Your task to perform on an android device: toggle javascript in the chrome app Image 0: 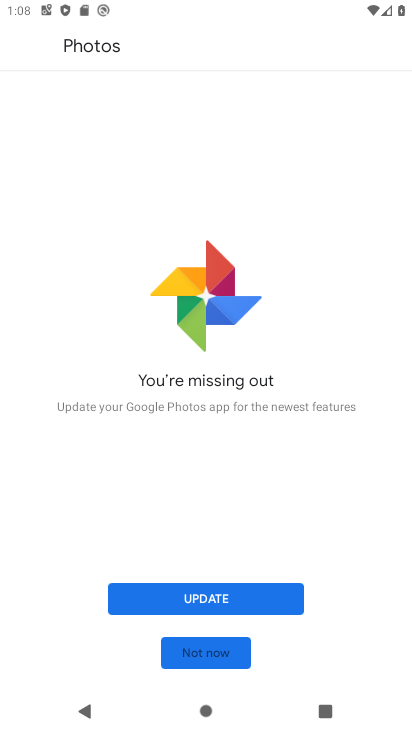
Step 0: press home button
Your task to perform on an android device: toggle javascript in the chrome app Image 1: 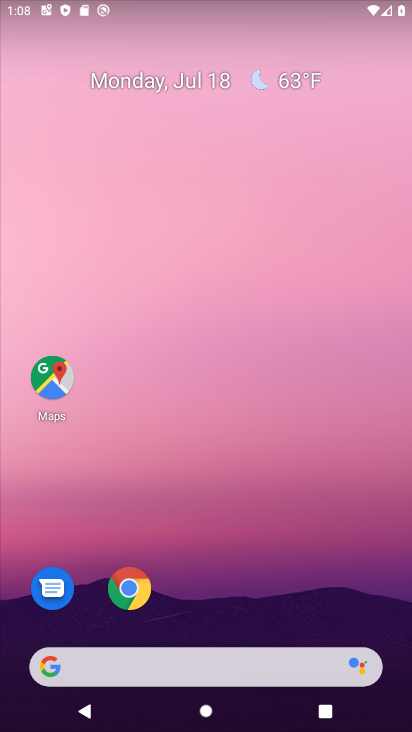
Step 1: click (128, 585)
Your task to perform on an android device: toggle javascript in the chrome app Image 2: 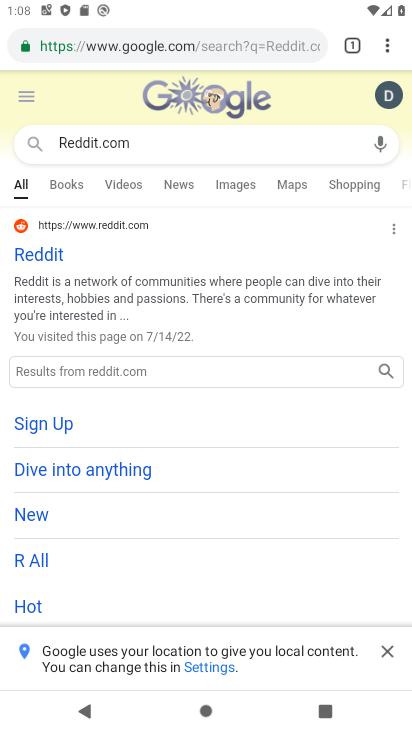
Step 2: click (386, 39)
Your task to perform on an android device: toggle javascript in the chrome app Image 3: 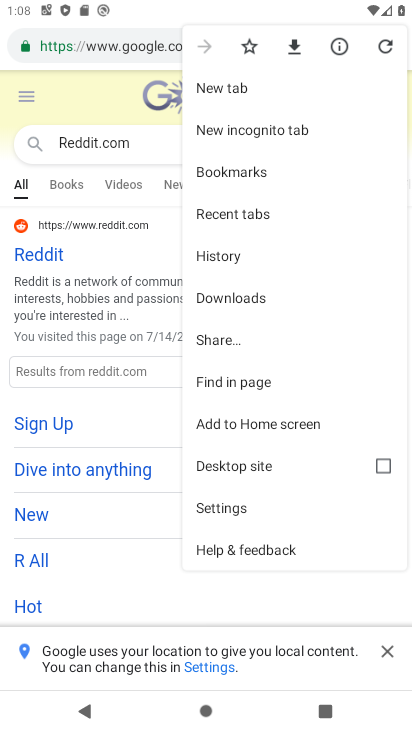
Step 3: click (386, 39)
Your task to perform on an android device: toggle javascript in the chrome app Image 4: 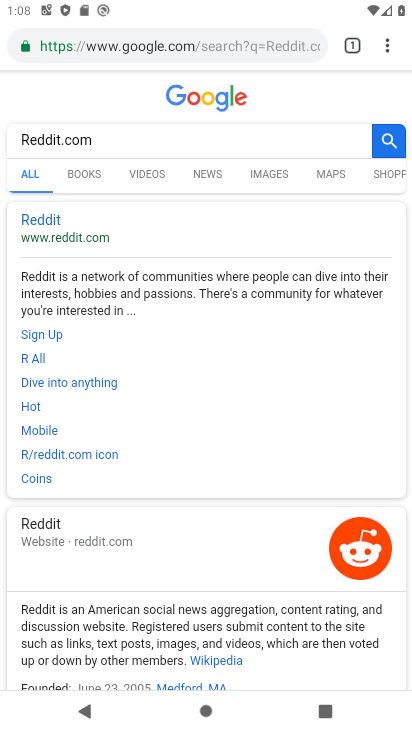
Step 4: click (388, 44)
Your task to perform on an android device: toggle javascript in the chrome app Image 5: 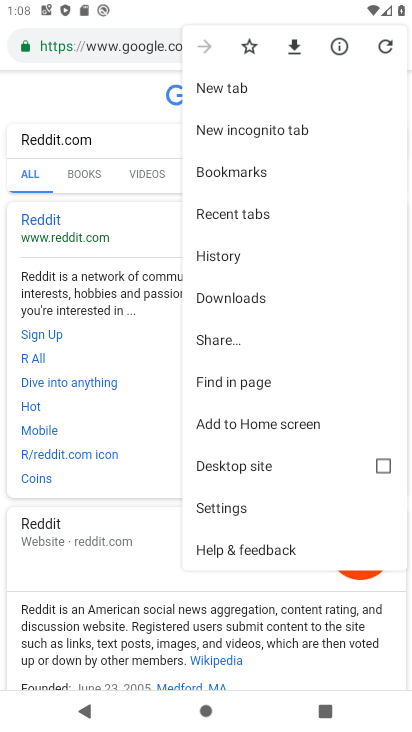
Step 5: click (210, 507)
Your task to perform on an android device: toggle javascript in the chrome app Image 6: 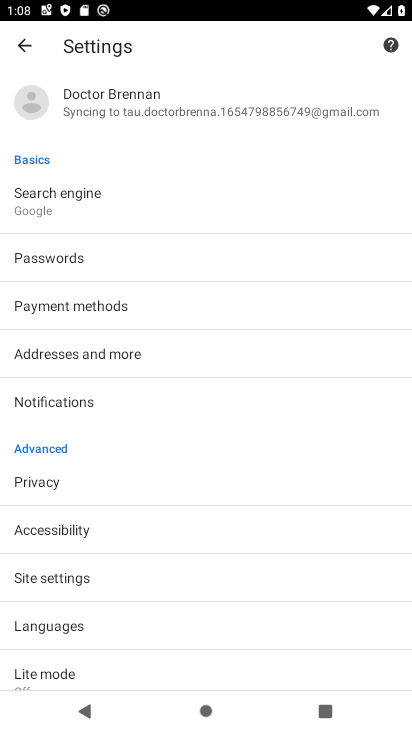
Step 6: click (67, 577)
Your task to perform on an android device: toggle javascript in the chrome app Image 7: 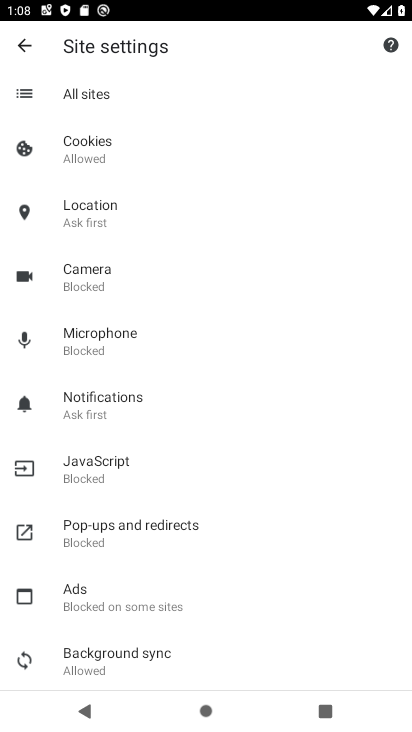
Step 7: click (107, 457)
Your task to perform on an android device: toggle javascript in the chrome app Image 8: 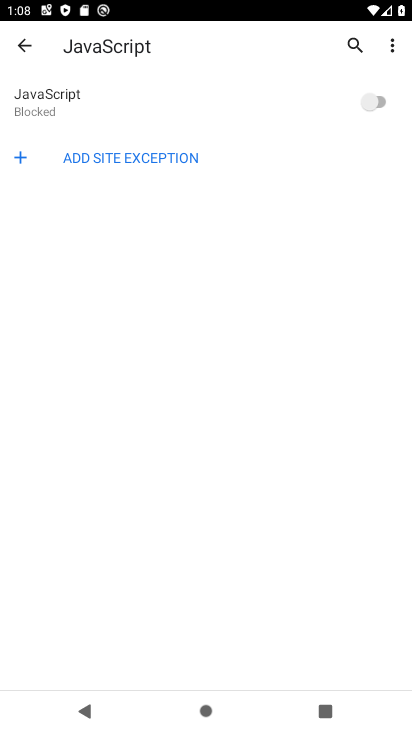
Step 8: click (368, 100)
Your task to perform on an android device: toggle javascript in the chrome app Image 9: 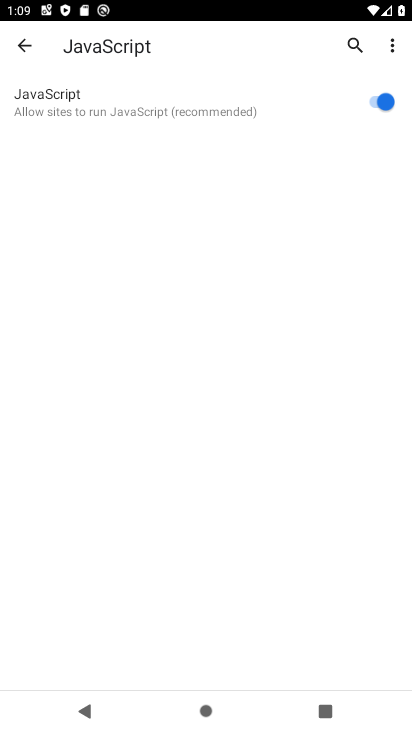
Step 9: task complete